Your task to perform on an android device: What's the weather going to be tomorrow? Image 0: 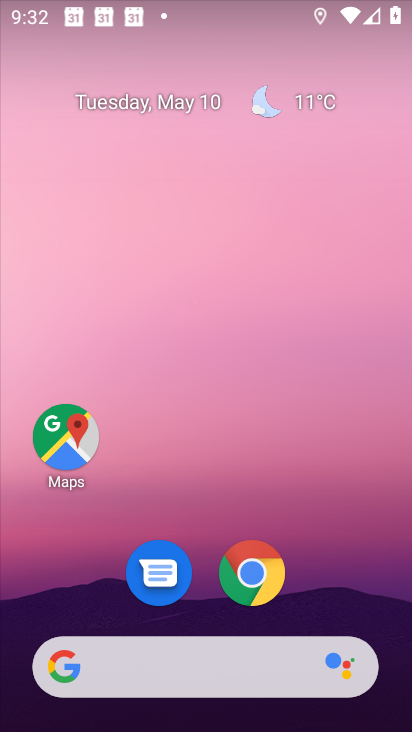
Step 0: click (271, 569)
Your task to perform on an android device: What's the weather going to be tomorrow? Image 1: 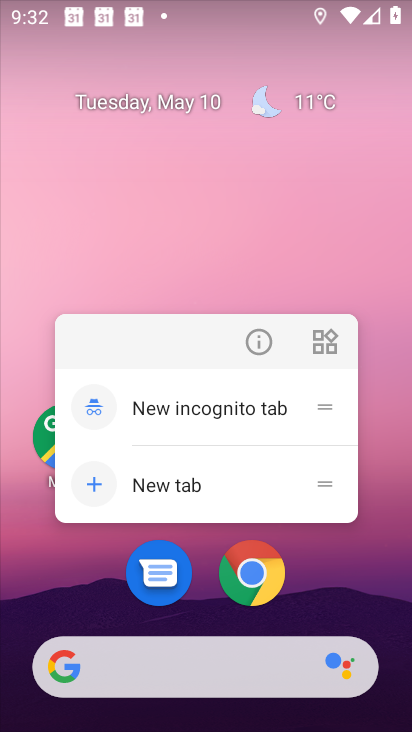
Step 1: click (255, 591)
Your task to perform on an android device: What's the weather going to be tomorrow? Image 2: 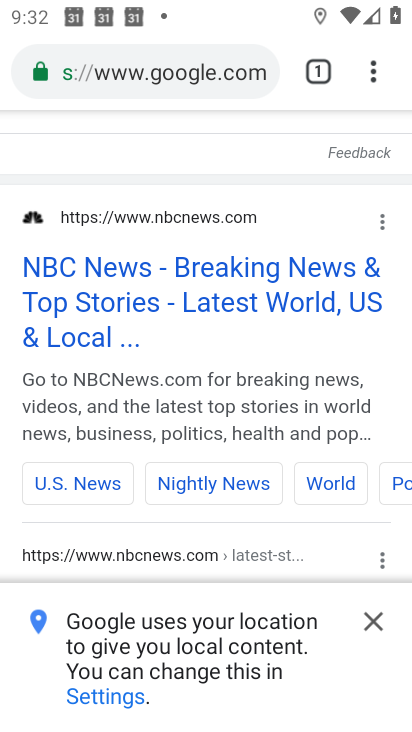
Step 2: click (182, 74)
Your task to perform on an android device: What's the weather going to be tomorrow? Image 3: 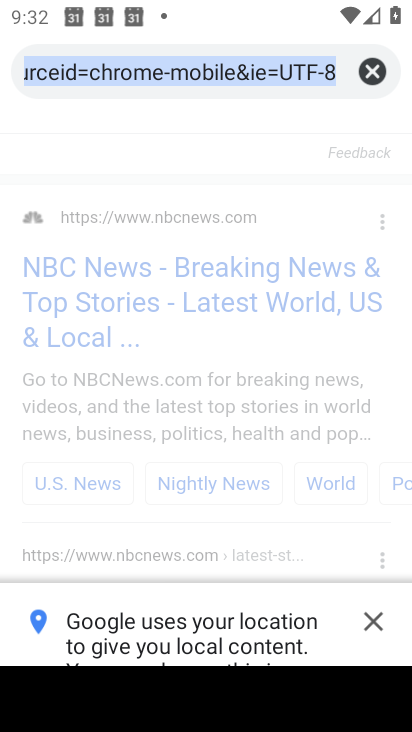
Step 3: type "whats the weather going to be tomorrow?"
Your task to perform on an android device: What's the weather going to be tomorrow? Image 4: 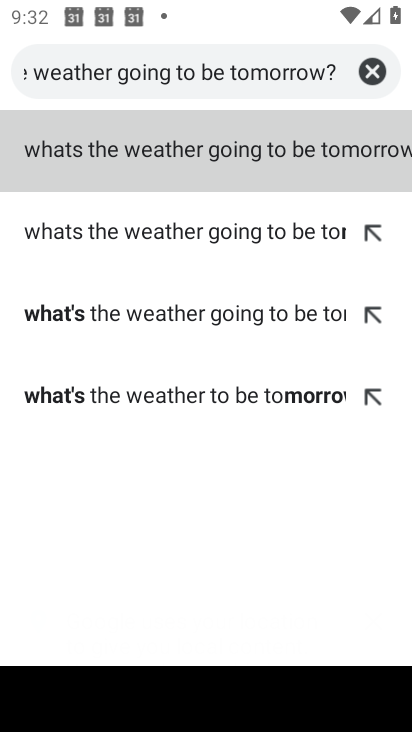
Step 4: click (212, 162)
Your task to perform on an android device: What's the weather going to be tomorrow? Image 5: 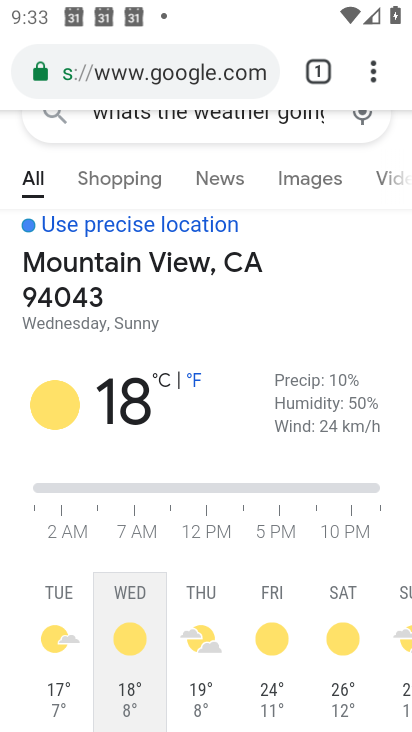
Step 5: task complete